Your task to perform on an android device: open app "LinkedIn" Image 0: 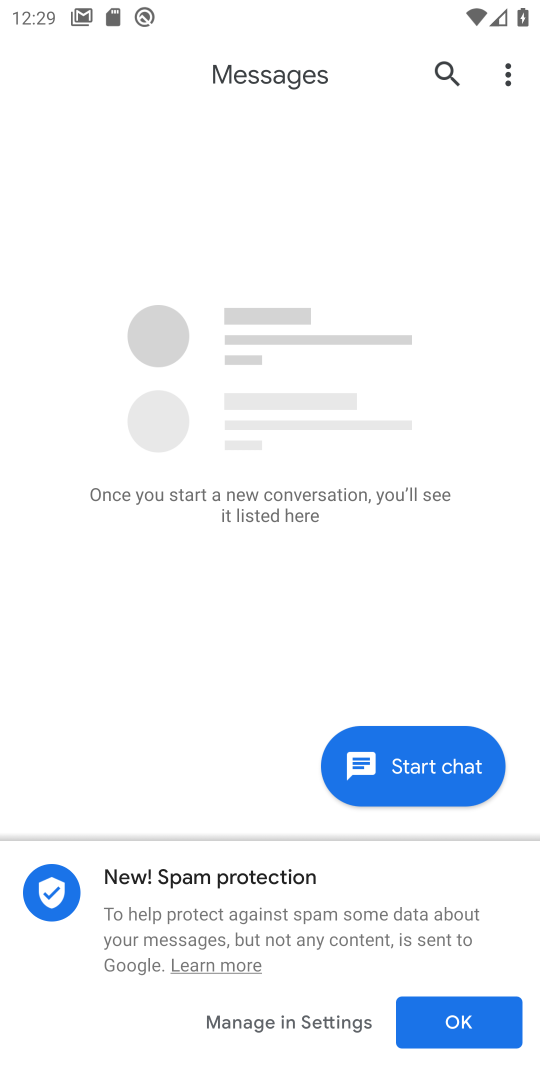
Step 0: press back button
Your task to perform on an android device: open app "LinkedIn" Image 1: 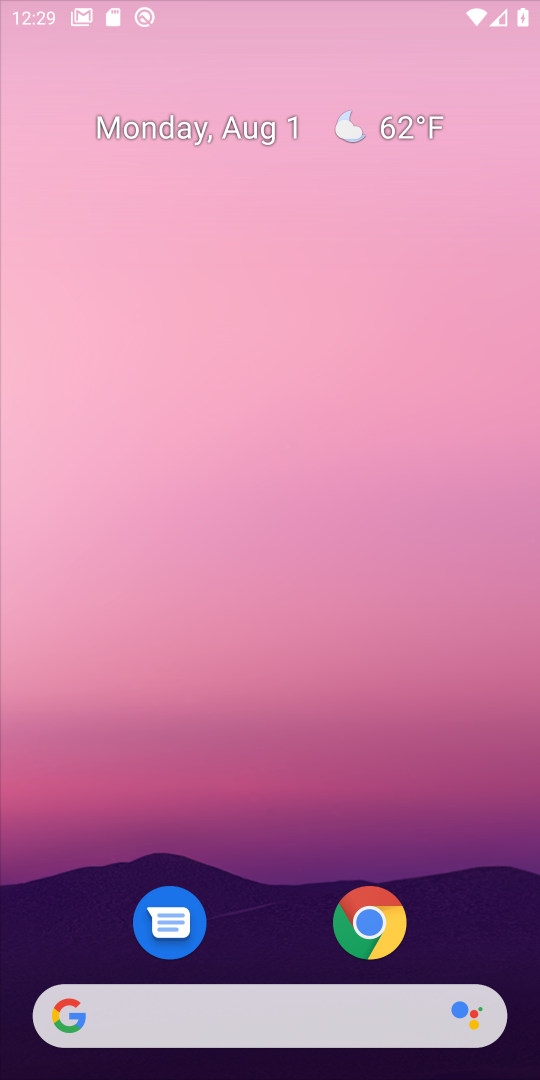
Step 1: drag from (267, 672) to (262, 334)
Your task to perform on an android device: open app "LinkedIn" Image 2: 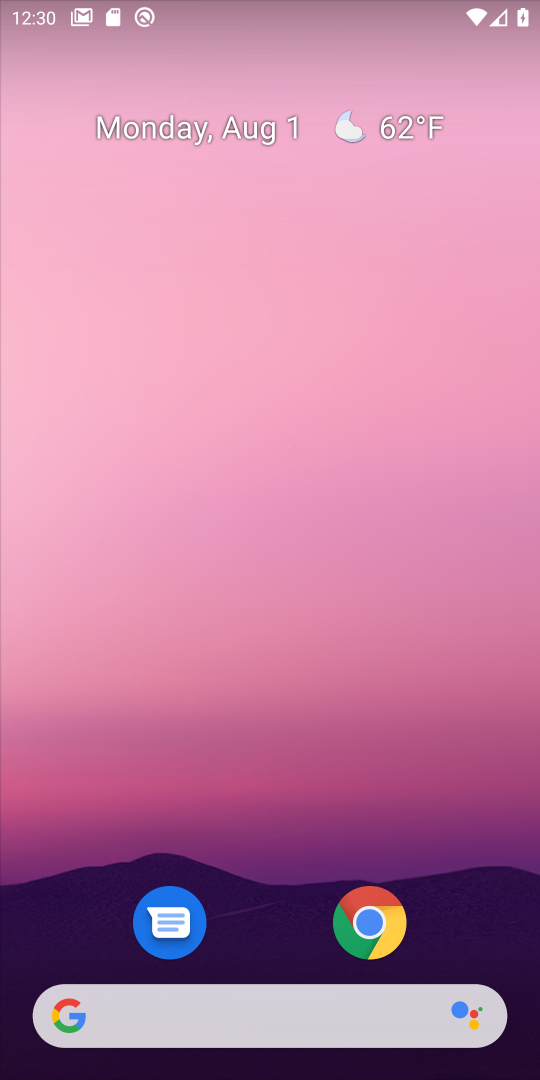
Step 2: drag from (275, 883) to (272, 247)
Your task to perform on an android device: open app "LinkedIn" Image 3: 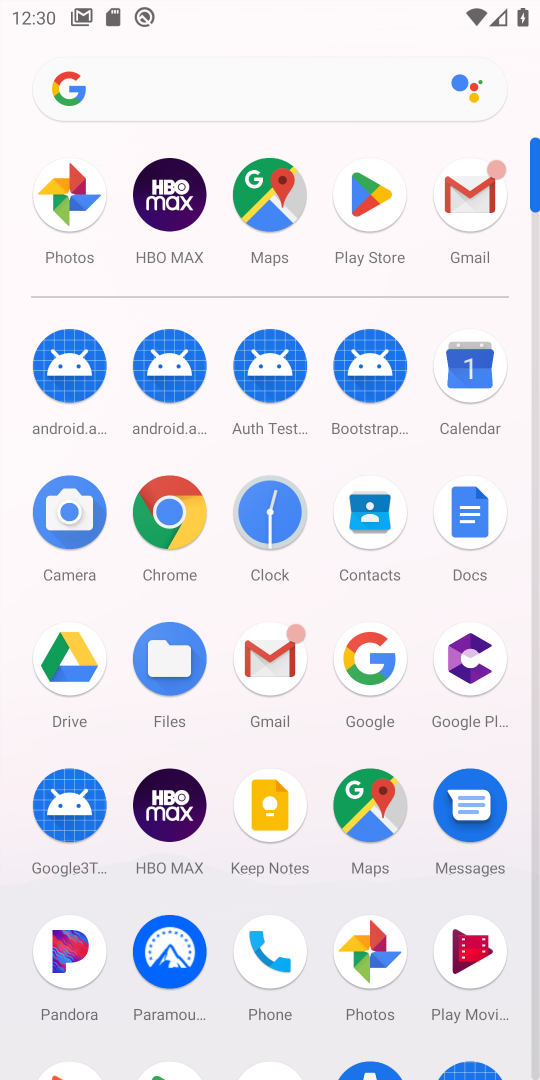
Step 3: click (366, 238)
Your task to perform on an android device: open app "LinkedIn" Image 4: 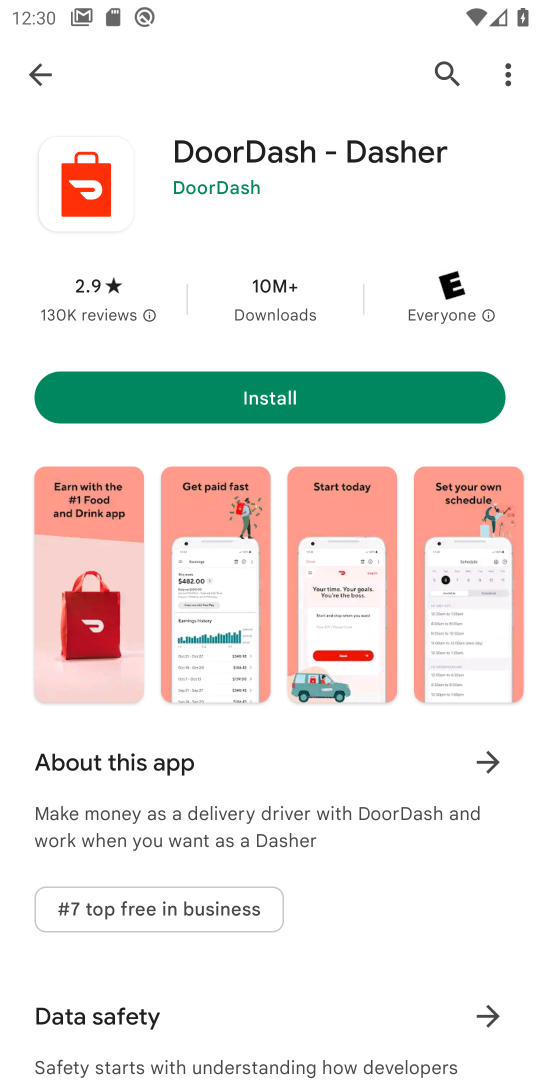
Step 4: click (437, 75)
Your task to perform on an android device: open app "LinkedIn" Image 5: 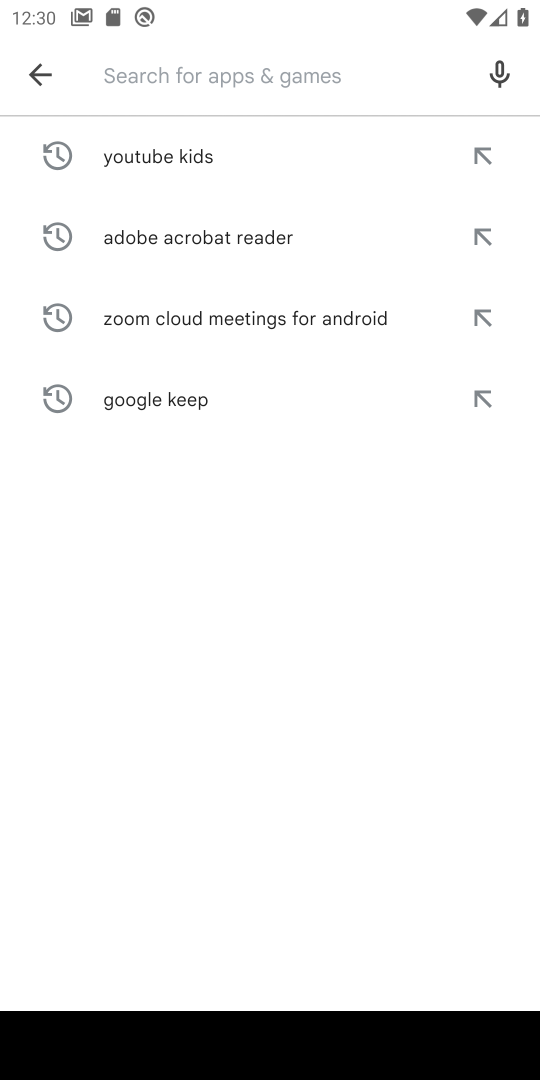
Step 5: type "LinkedIn"
Your task to perform on an android device: open app "LinkedIn" Image 6: 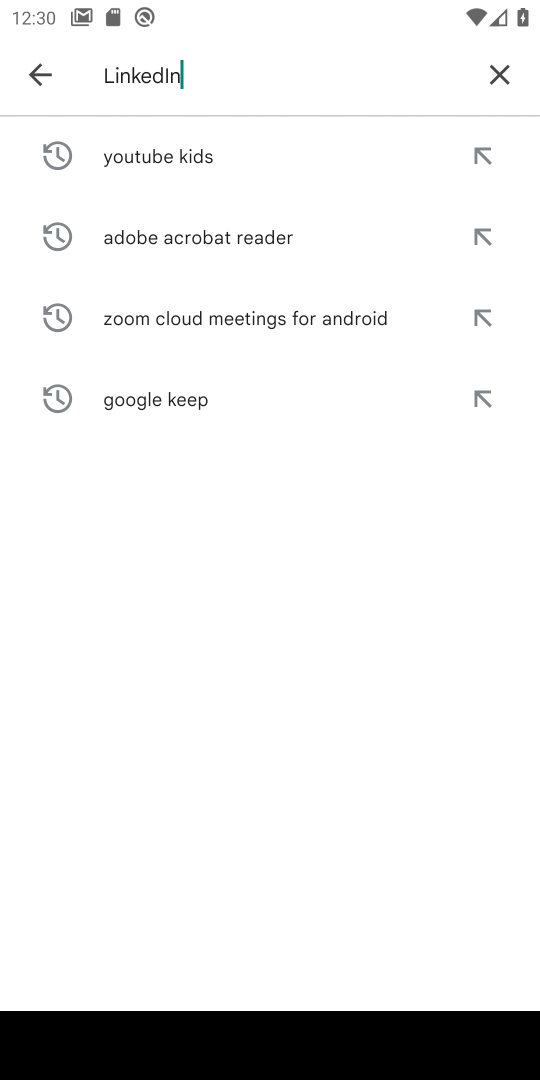
Step 6: type ""
Your task to perform on an android device: open app "LinkedIn" Image 7: 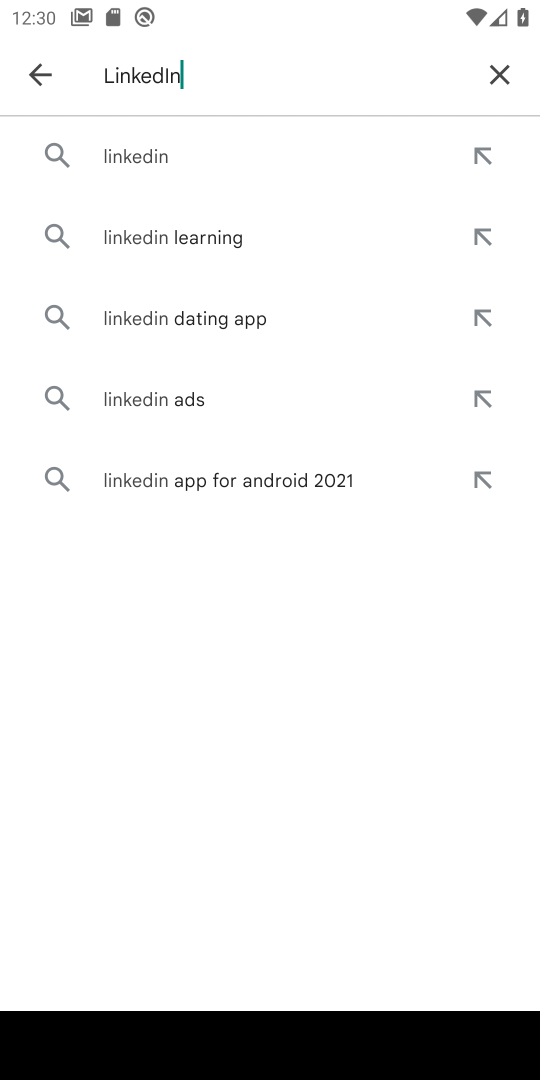
Step 7: click (162, 167)
Your task to perform on an android device: open app "LinkedIn" Image 8: 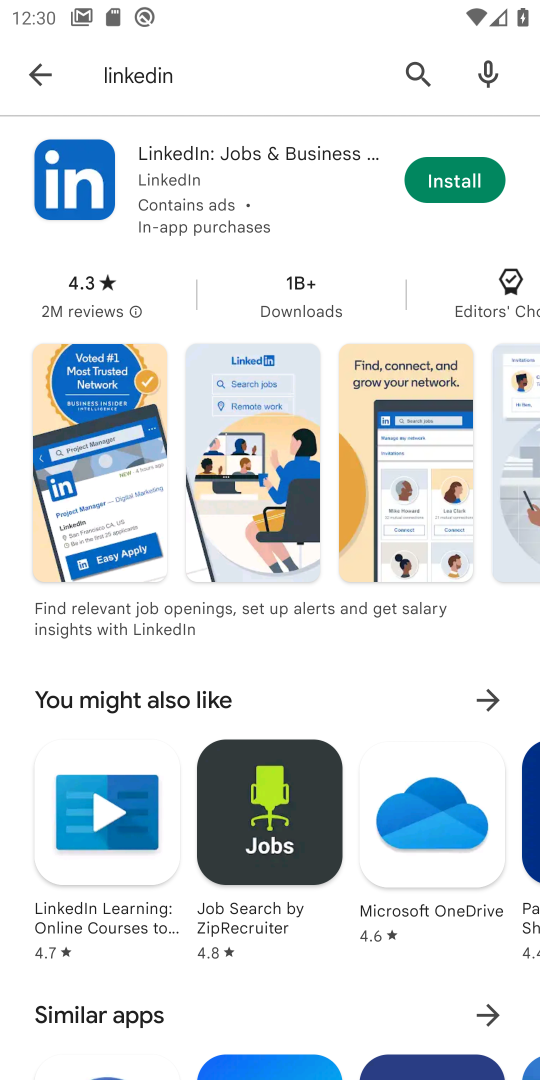
Step 8: task complete